Your task to perform on an android device: turn on wifi Image 0: 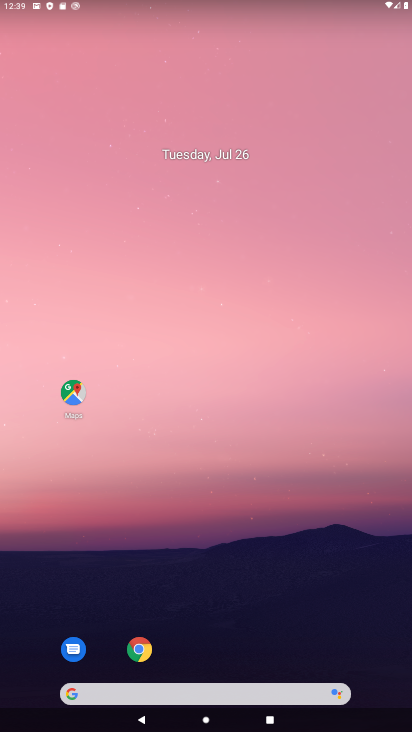
Step 0: drag from (299, 6) to (302, 559)
Your task to perform on an android device: turn on wifi Image 1: 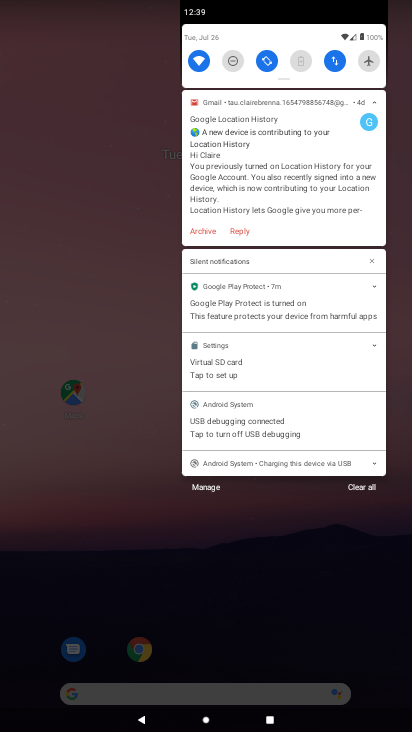
Step 1: task complete